Your task to perform on an android device: Open Google Image 0: 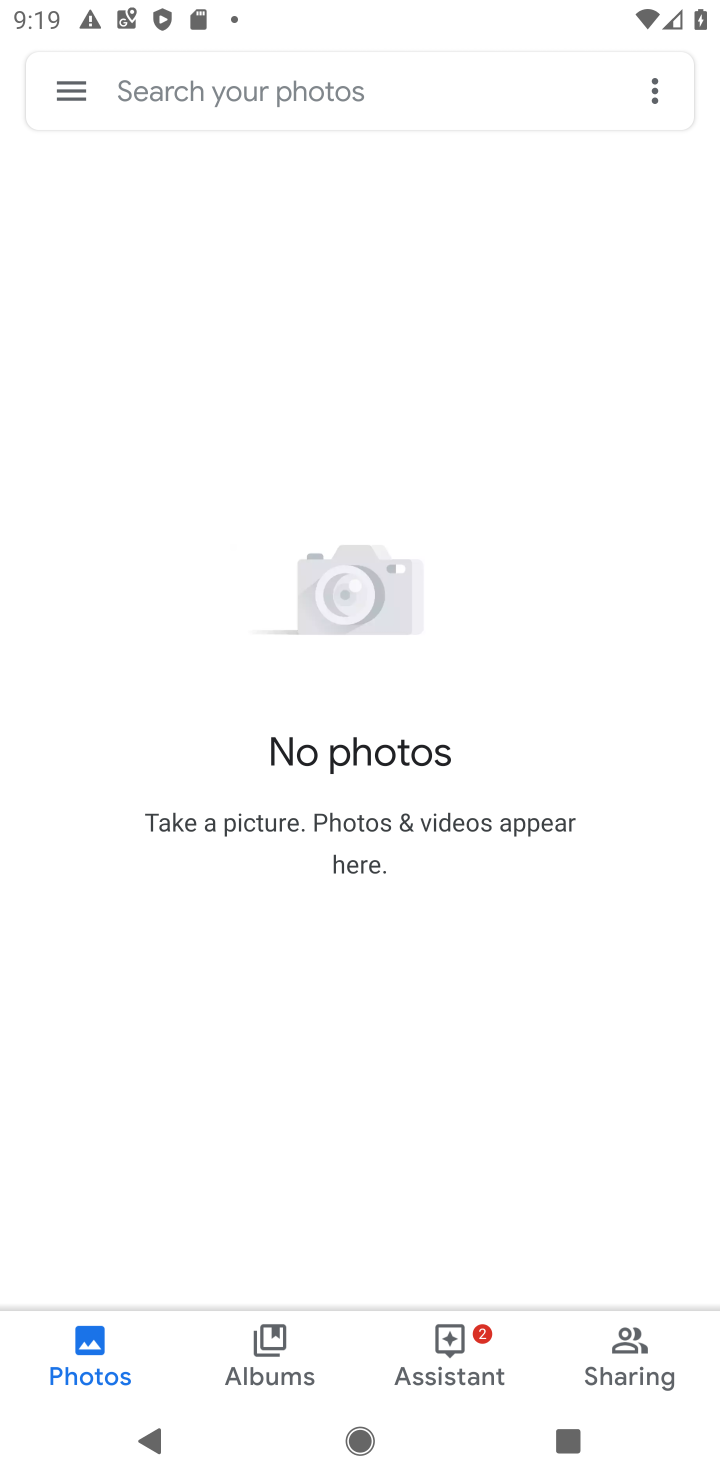
Step 0: press home button
Your task to perform on an android device: Open Google Image 1: 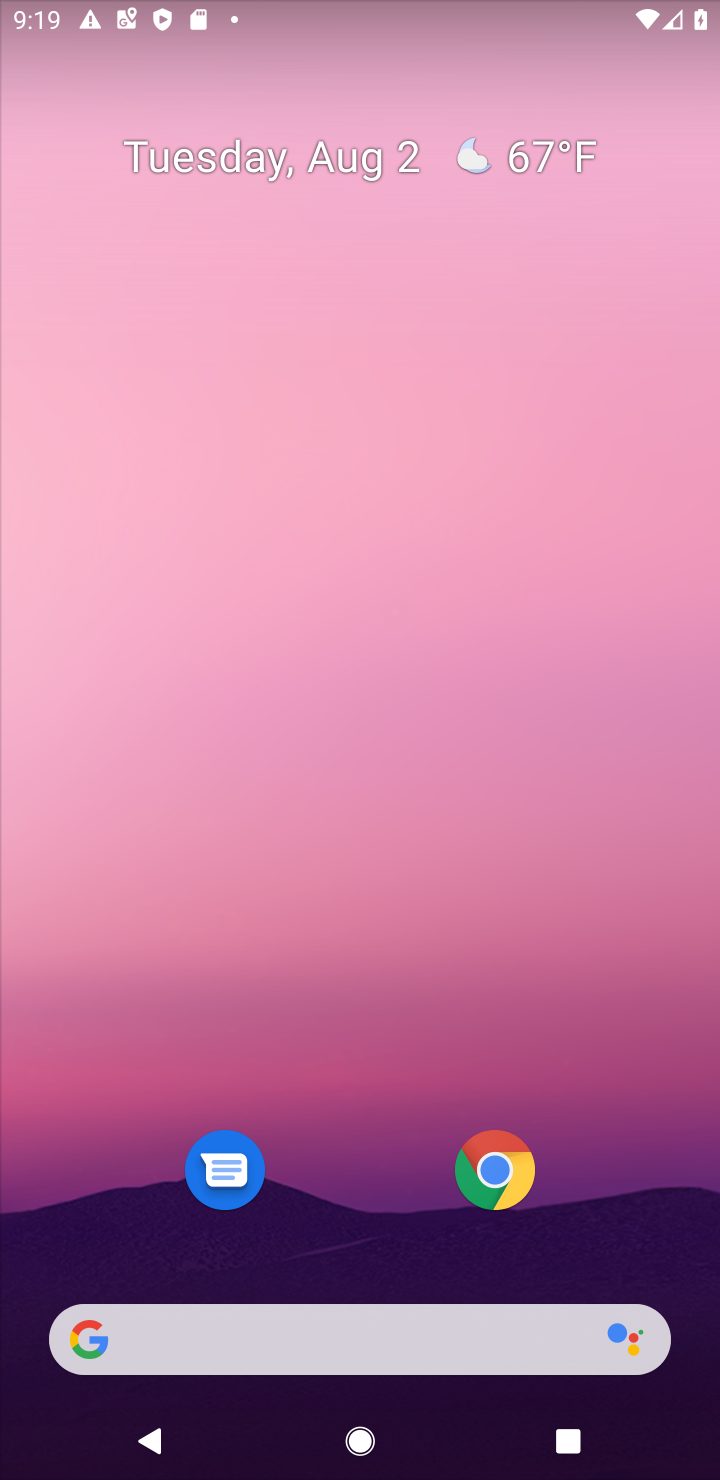
Step 1: click (177, 1335)
Your task to perform on an android device: Open Google Image 2: 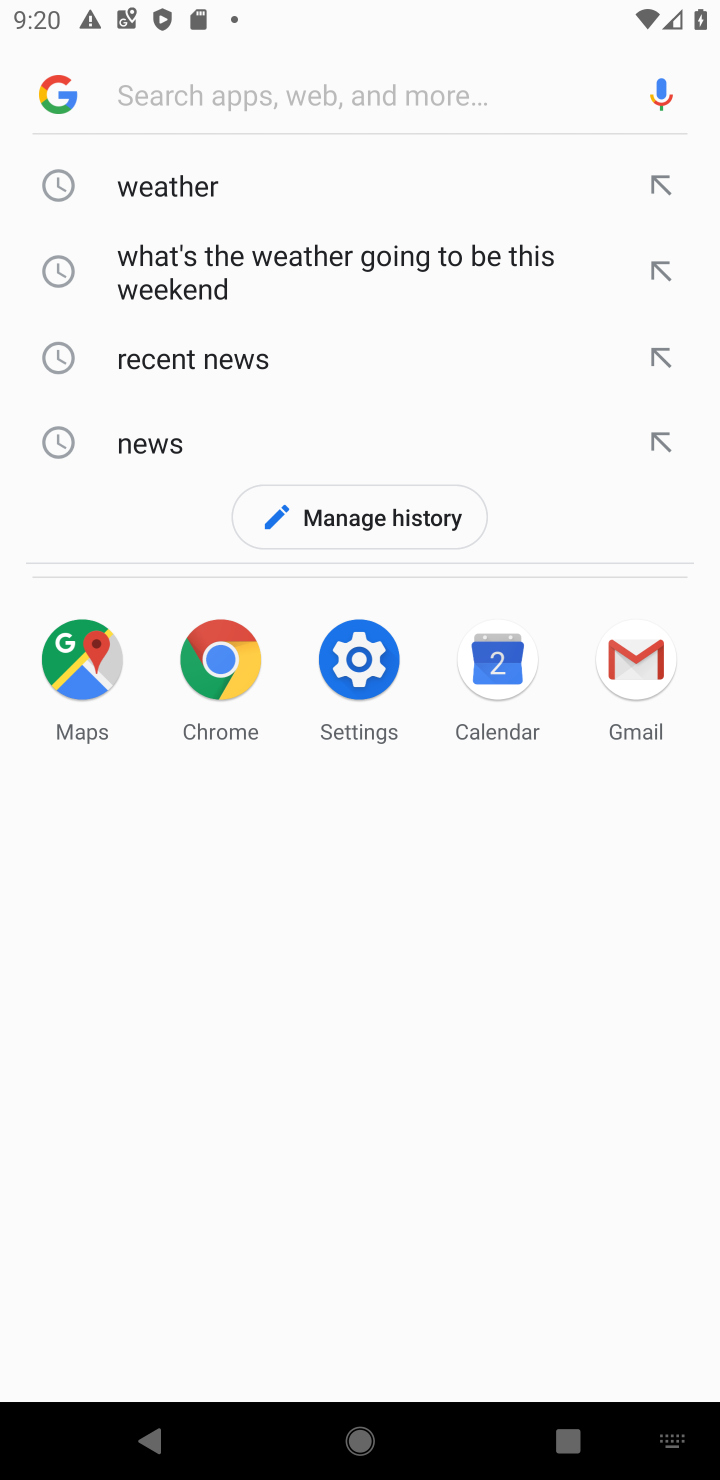
Step 2: task complete